Your task to perform on an android device: change the upload size in google photos Image 0: 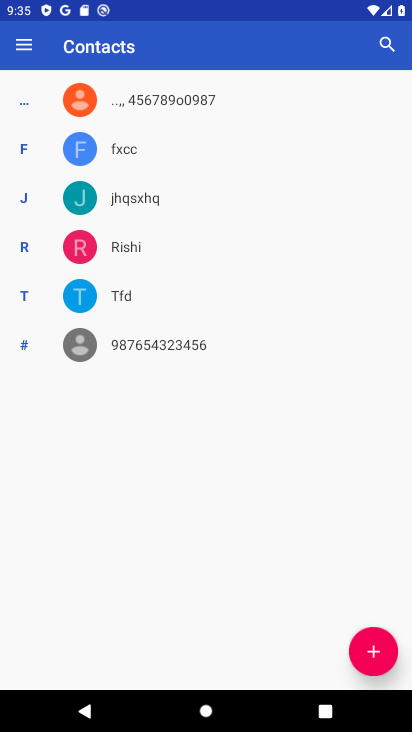
Step 0: press home button
Your task to perform on an android device: change the upload size in google photos Image 1: 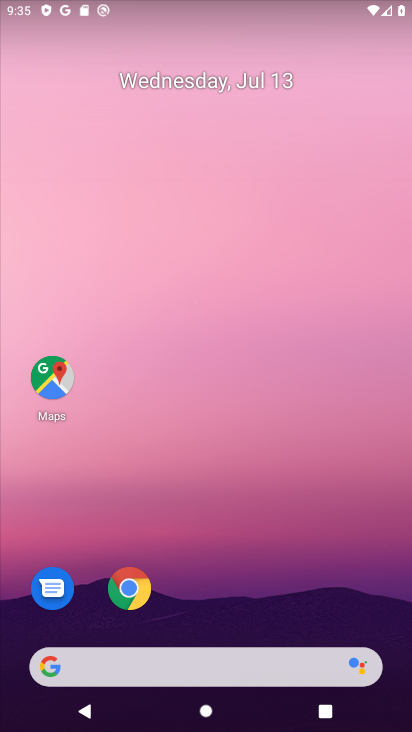
Step 1: drag from (261, 607) to (265, 114)
Your task to perform on an android device: change the upload size in google photos Image 2: 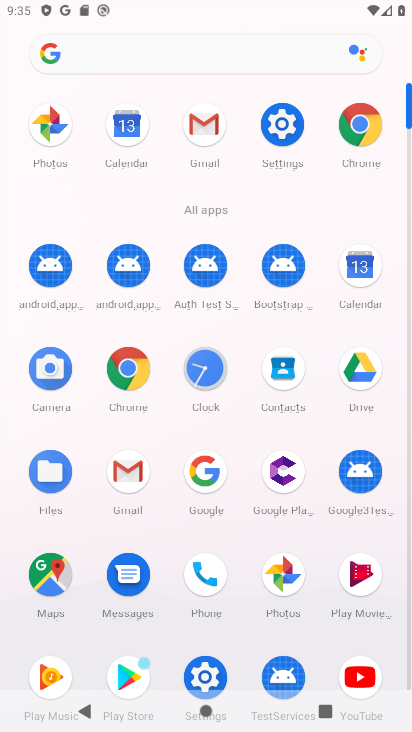
Step 2: click (281, 574)
Your task to perform on an android device: change the upload size in google photos Image 3: 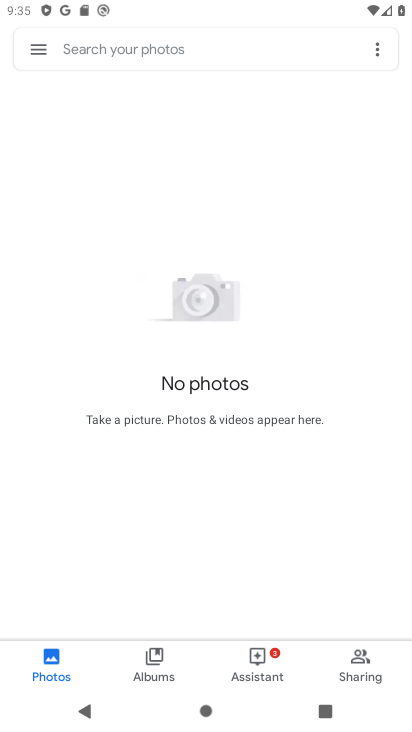
Step 3: click (42, 54)
Your task to perform on an android device: change the upload size in google photos Image 4: 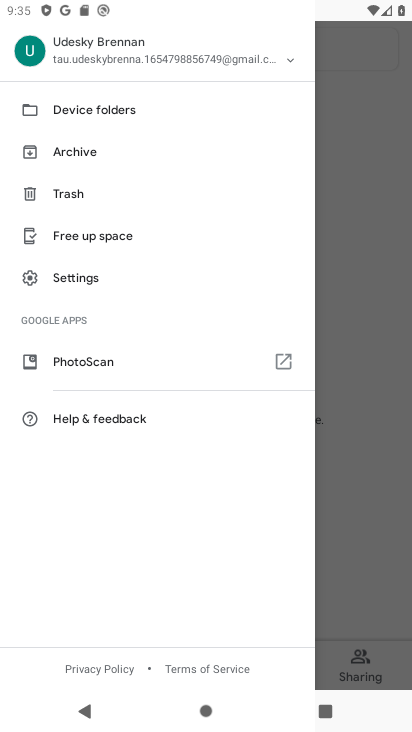
Step 4: click (102, 277)
Your task to perform on an android device: change the upload size in google photos Image 5: 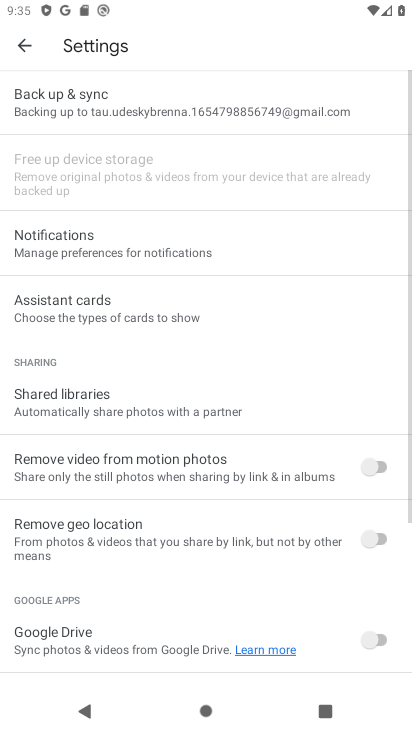
Step 5: click (111, 102)
Your task to perform on an android device: change the upload size in google photos Image 6: 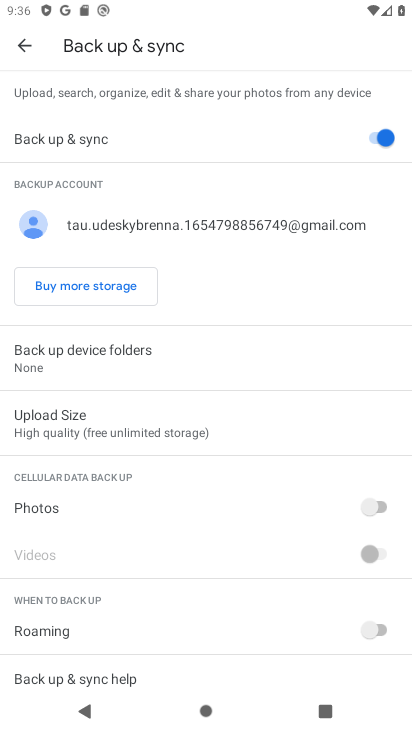
Step 6: click (138, 423)
Your task to perform on an android device: change the upload size in google photos Image 7: 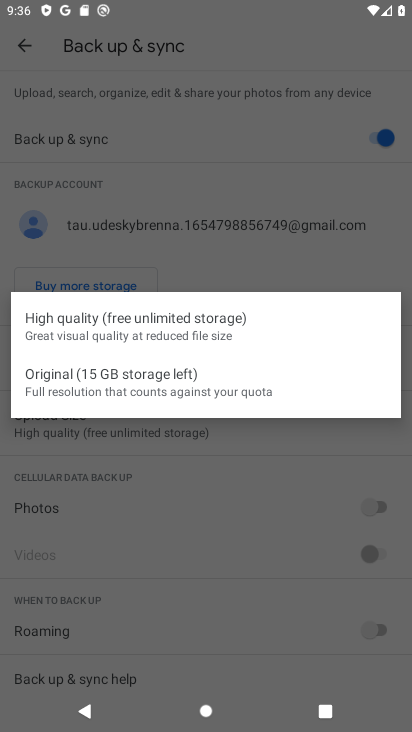
Step 7: click (76, 383)
Your task to perform on an android device: change the upload size in google photos Image 8: 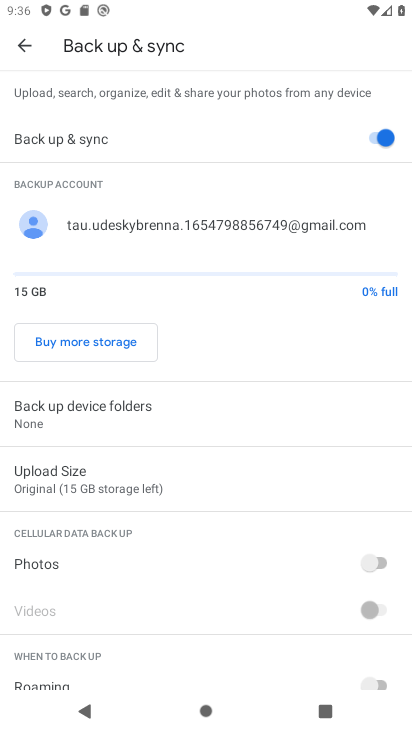
Step 8: task complete